Your task to perform on an android device: change the clock display to show seconds Image 0: 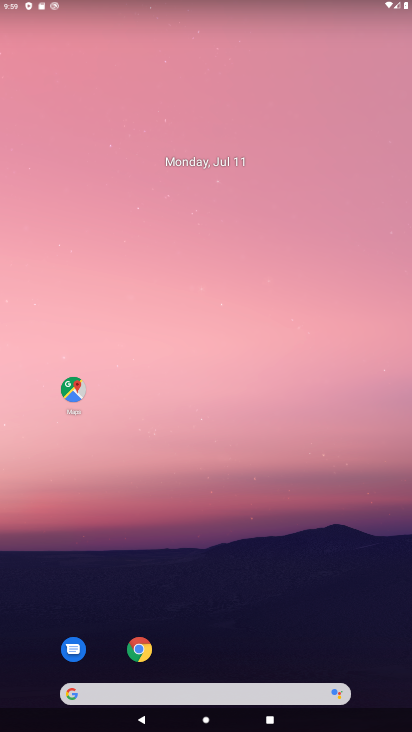
Step 0: drag from (251, 482) to (189, 184)
Your task to perform on an android device: change the clock display to show seconds Image 1: 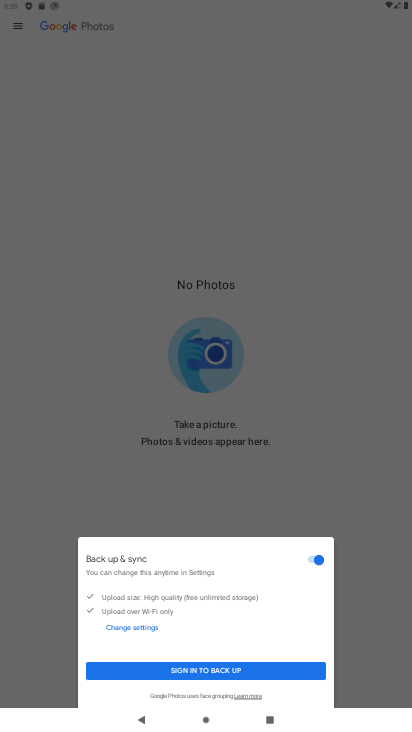
Step 1: press back button
Your task to perform on an android device: change the clock display to show seconds Image 2: 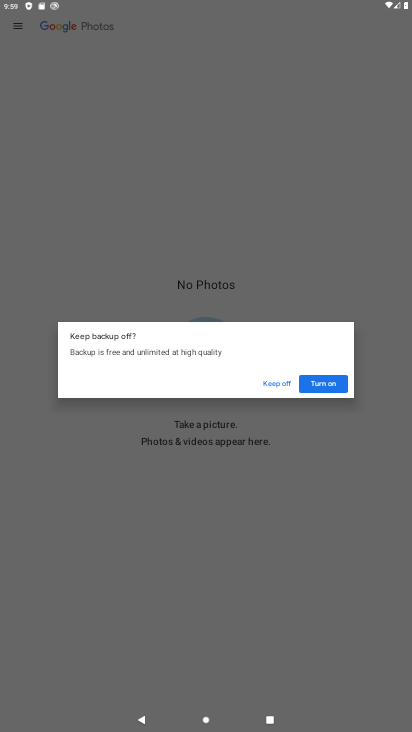
Step 2: press home button
Your task to perform on an android device: change the clock display to show seconds Image 3: 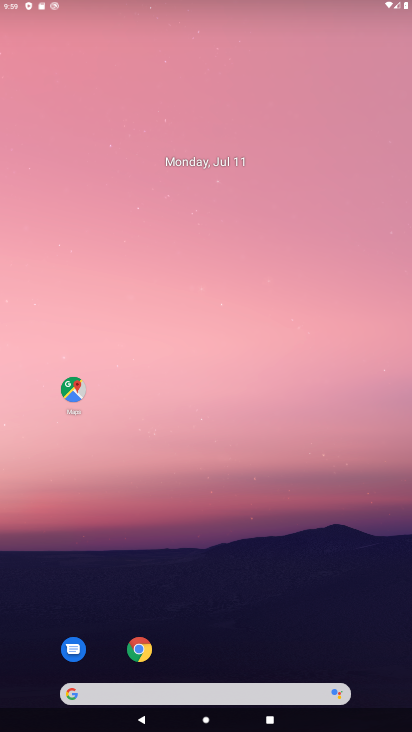
Step 3: drag from (183, 410) to (141, 140)
Your task to perform on an android device: change the clock display to show seconds Image 4: 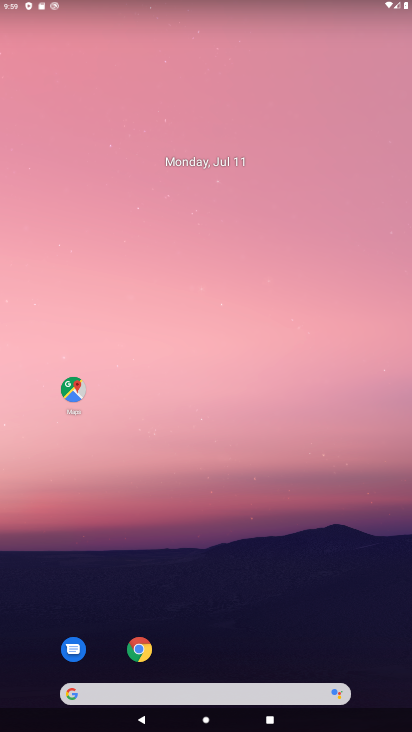
Step 4: drag from (268, 443) to (276, 215)
Your task to perform on an android device: change the clock display to show seconds Image 5: 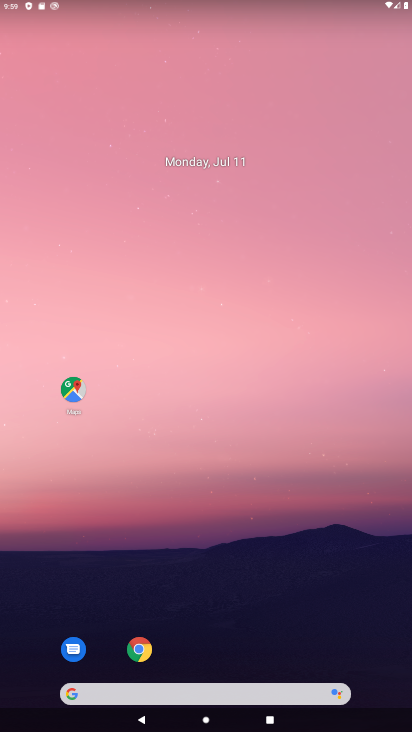
Step 5: drag from (254, 656) to (207, 116)
Your task to perform on an android device: change the clock display to show seconds Image 6: 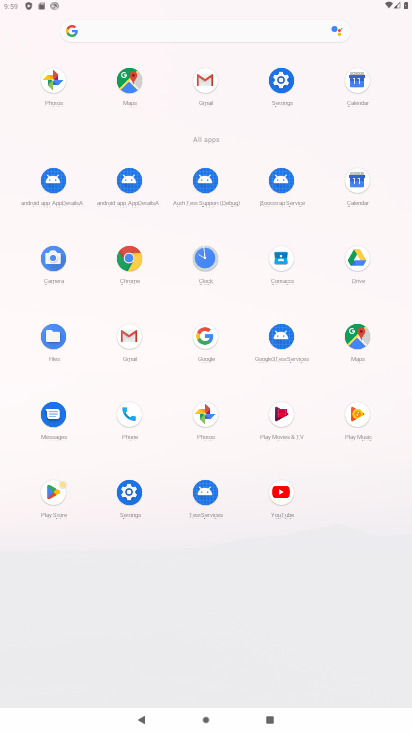
Step 6: click (198, 245)
Your task to perform on an android device: change the clock display to show seconds Image 7: 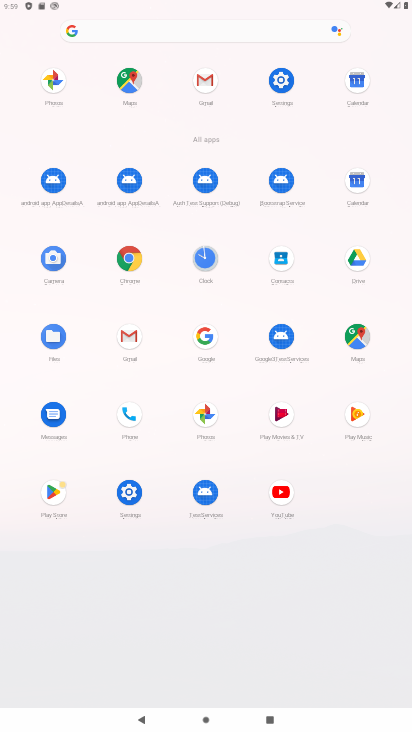
Step 7: click (201, 248)
Your task to perform on an android device: change the clock display to show seconds Image 8: 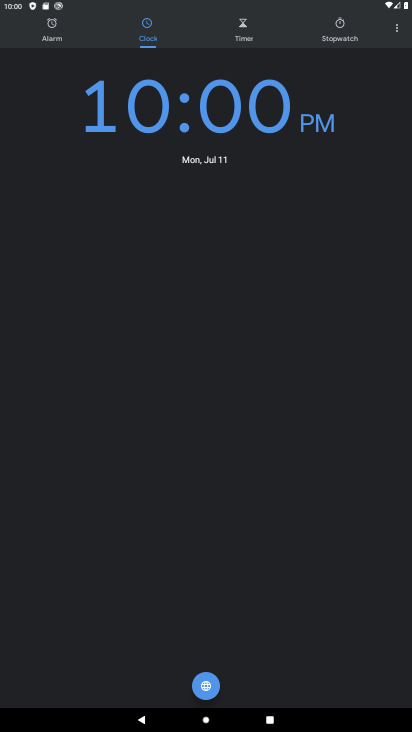
Step 8: click (397, 29)
Your task to perform on an android device: change the clock display to show seconds Image 9: 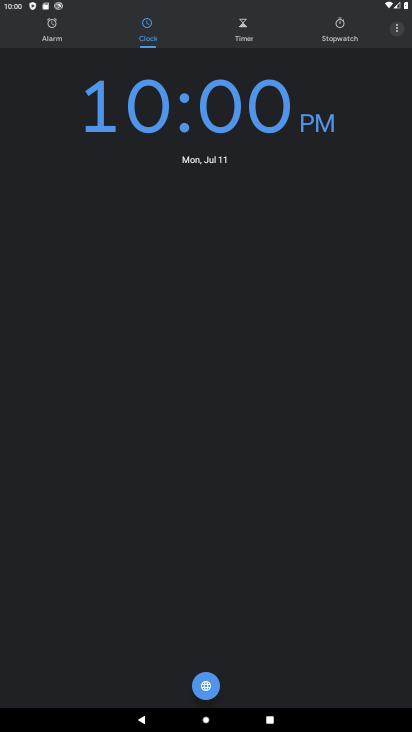
Step 9: click (398, 35)
Your task to perform on an android device: change the clock display to show seconds Image 10: 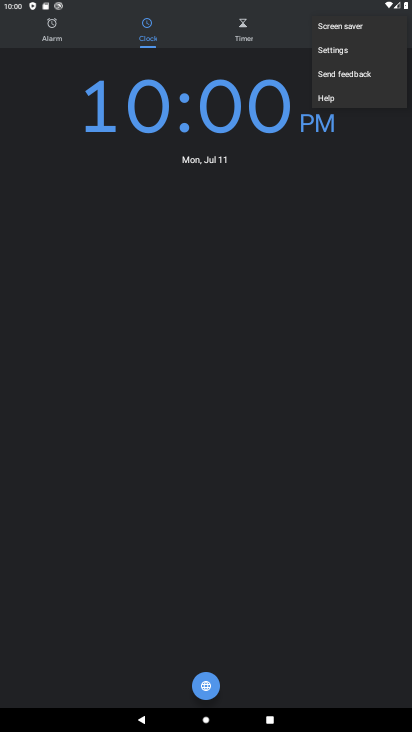
Step 10: click (397, 25)
Your task to perform on an android device: change the clock display to show seconds Image 11: 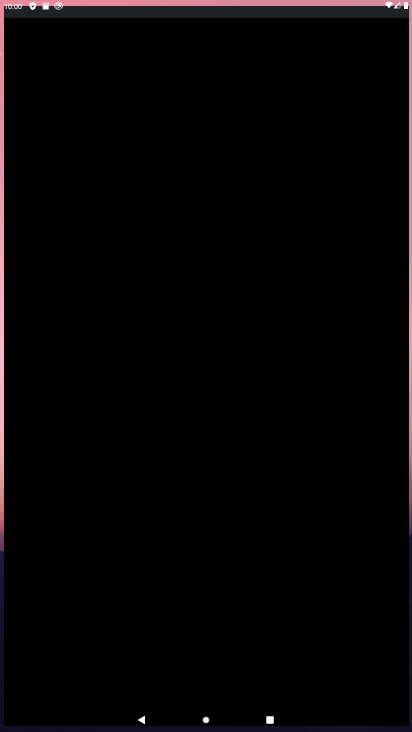
Step 11: click (294, 46)
Your task to perform on an android device: change the clock display to show seconds Image 12: 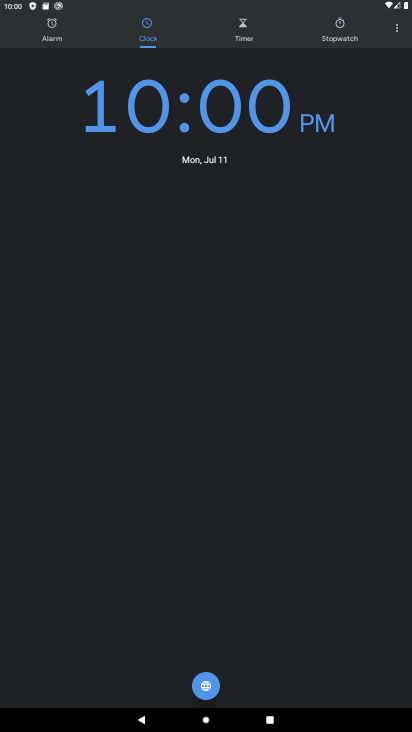
Step 12: click (395, 26)
Your task to perform on an android device: change the clock display to show seconds Image 13: 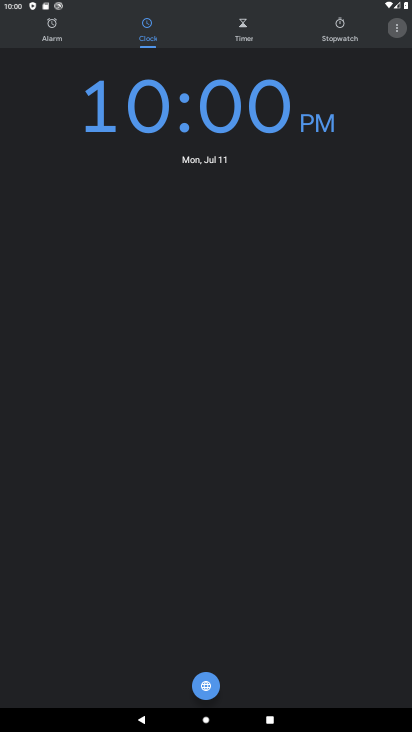
Step 13: click (400, 29)
Your task to perform on an android device: change the clock display to show seconds Image 14: 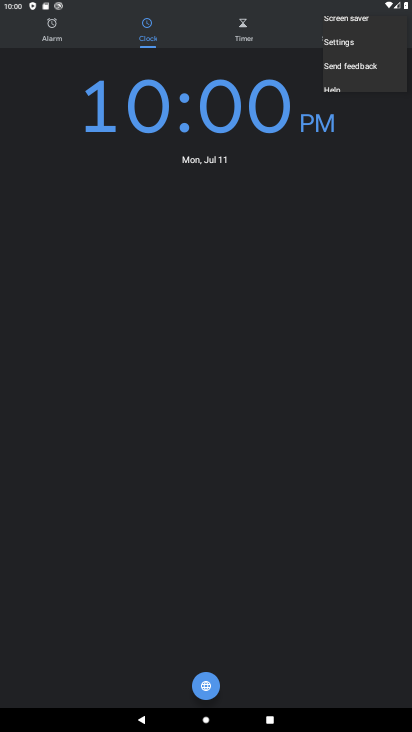
Step 14: click (400, 29)
Your task to perform on an android device: change the clock display to show seconds Image 15: 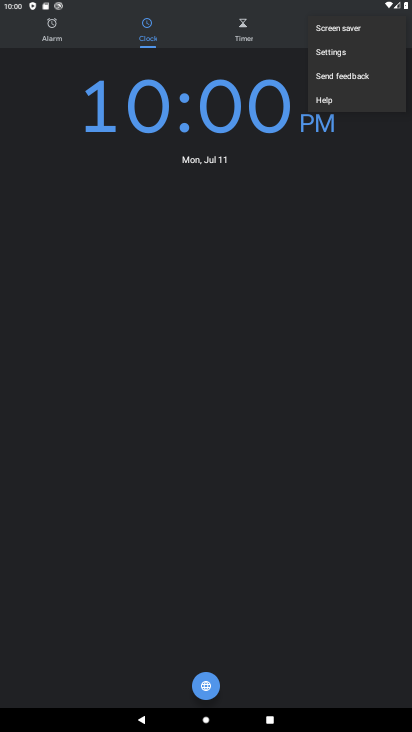
Step 15: click (319, 57)
Your task to perform on an android device: change the clock display to show seconds Image 16: 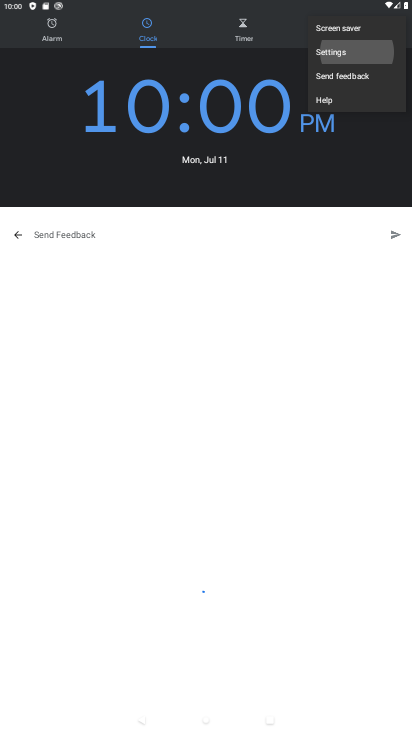
Step 16: click (324, 47)
Your task to perform on an android device: change the clock display to show seconds Image 17: 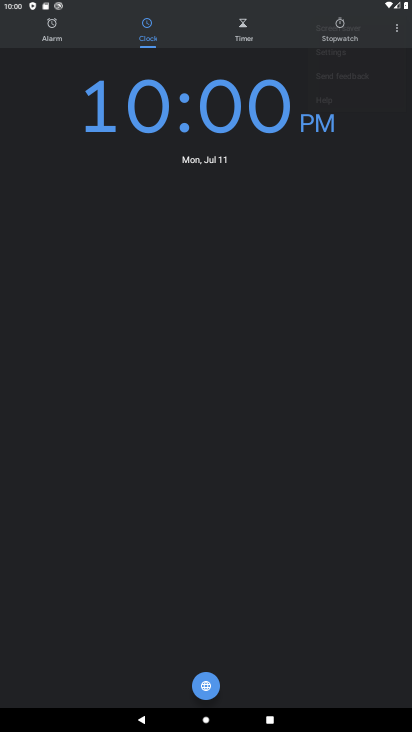
Step 17: click (326, 49)
Your task to perform on an android device: change the clock display to show seconds Image 18: 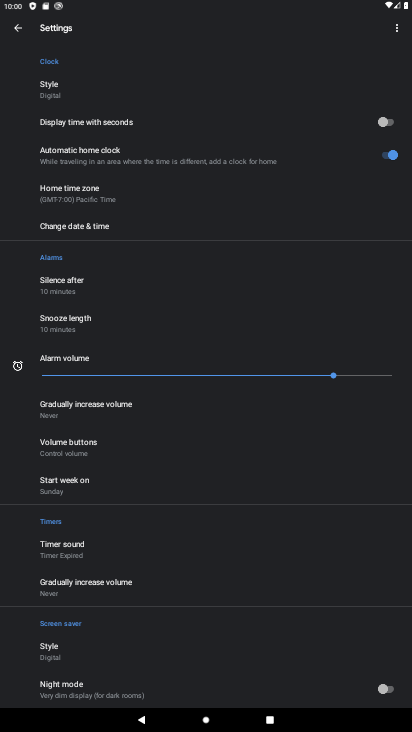
Step 18: click (384, 123)
Your task to perform on an android device: change the clock display to show seconds Image 19: 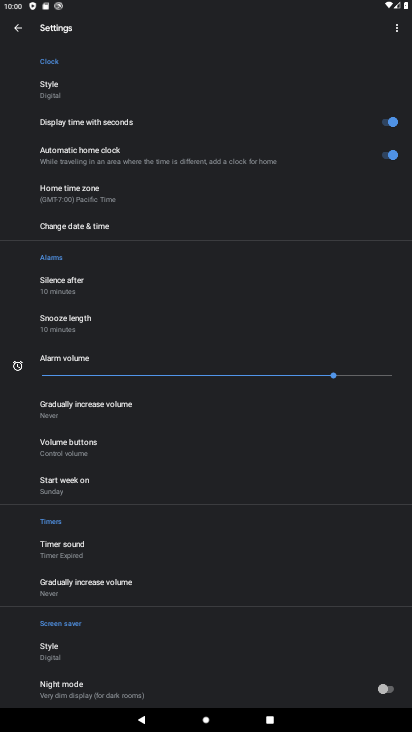
Step 19: task complete